Your task to perform on an android device: Open Google Image 0: 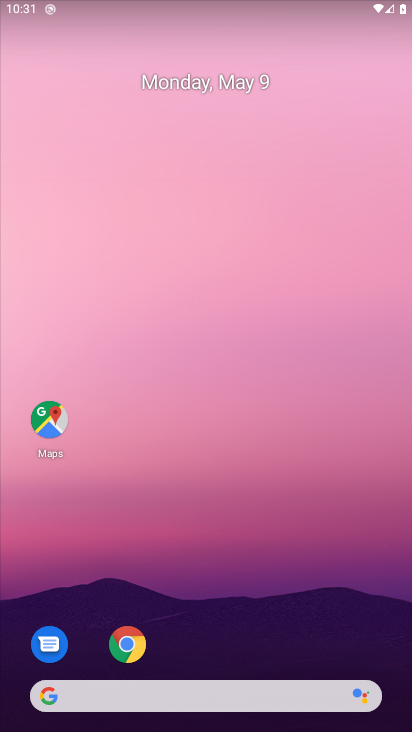
Step 0: click (187, 703)
Your task to perform on an android device: Open Google Image 1: 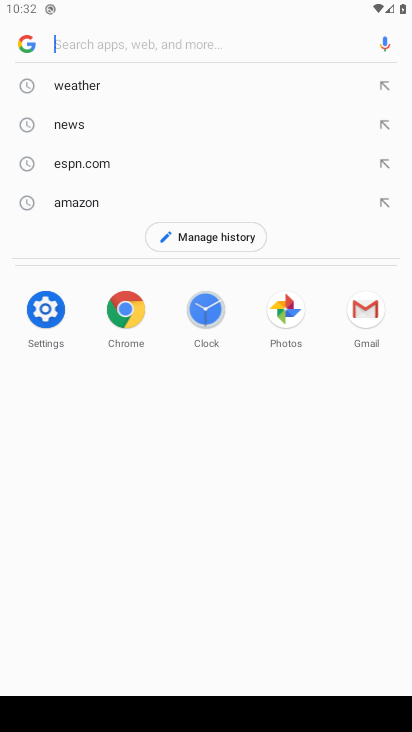
Step 1: click (32, 52)
Your task to perform on an android device: Open Google Image 2: 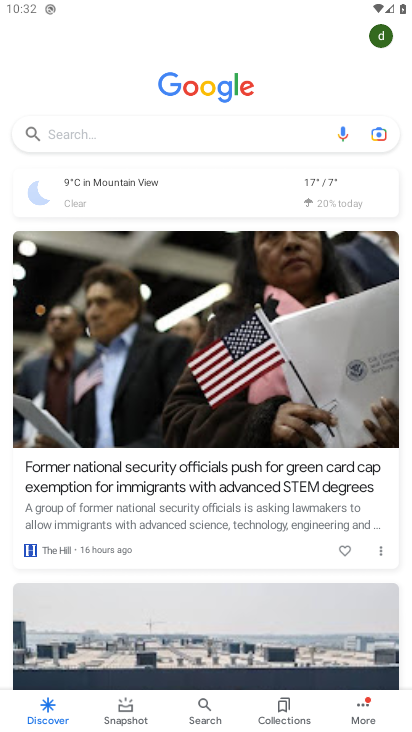
Step 2: task complete